Your task to perform on an android device: delete location history Image 0: 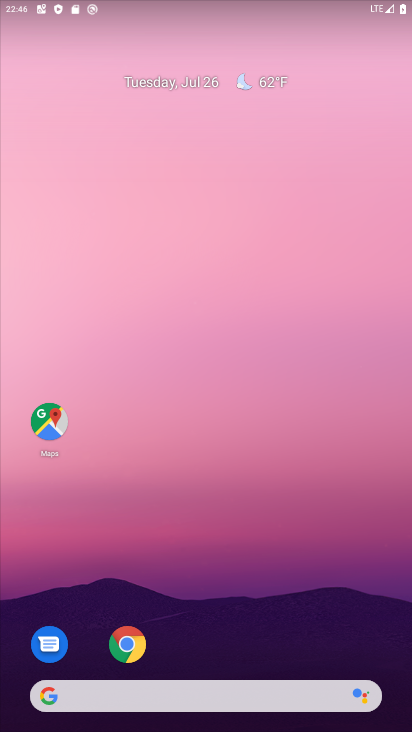
Step 0: click (49, 426)
Your task to perform on an android device: delete location history Image 1: 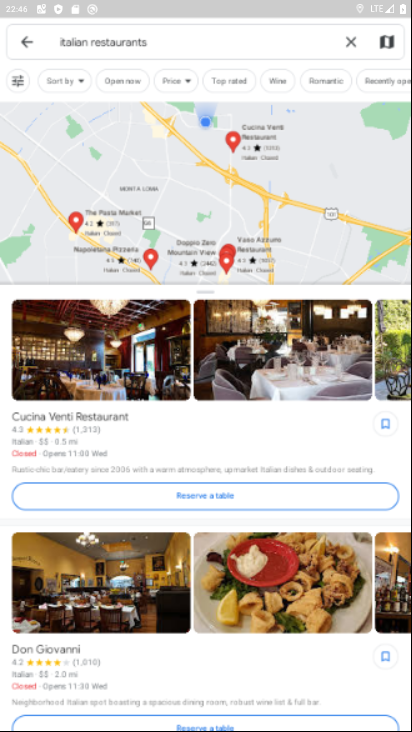
Step 1: click (347, 45)
Your task to perform on an android device: delete location history Image 2: 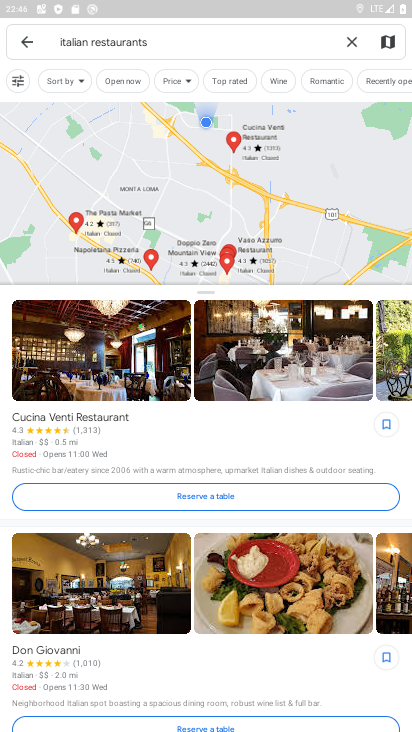
Step 2: click (351, 46)
Your task to perform on an android device: delete location history Image 3: 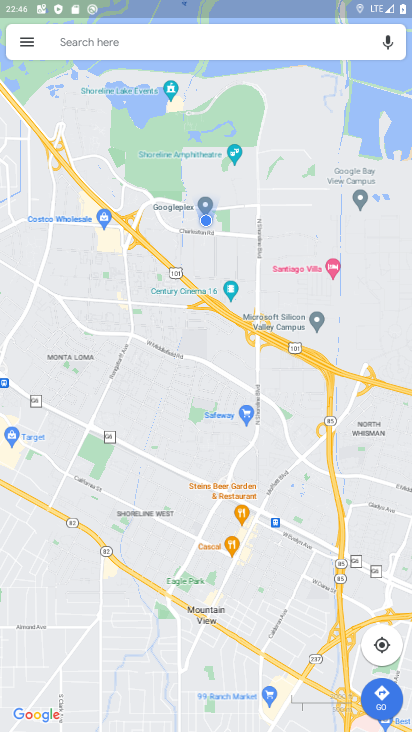
Step 3: click (28, 37)
Your task to perform on an android device: delete location history Image 4: 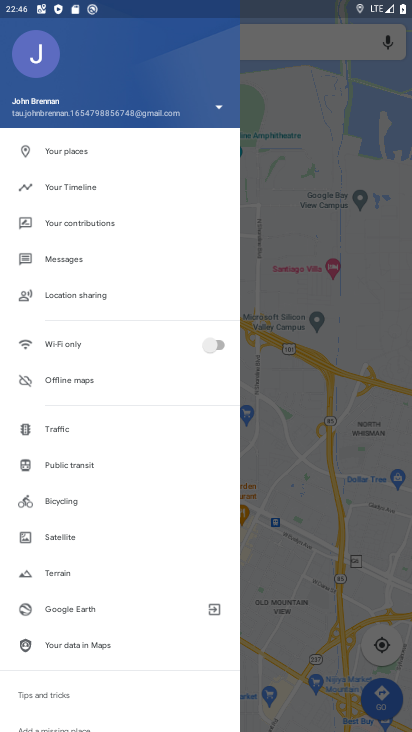
Step 4: click (53, 190)
Your task to perform on an android device: delete location history Image 5: 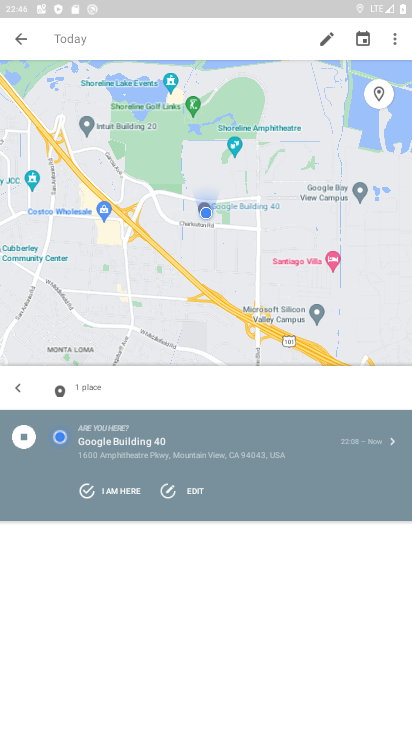
Step 5: click (396, 36)
Your task to perform on an android device: delete location history Image 6: 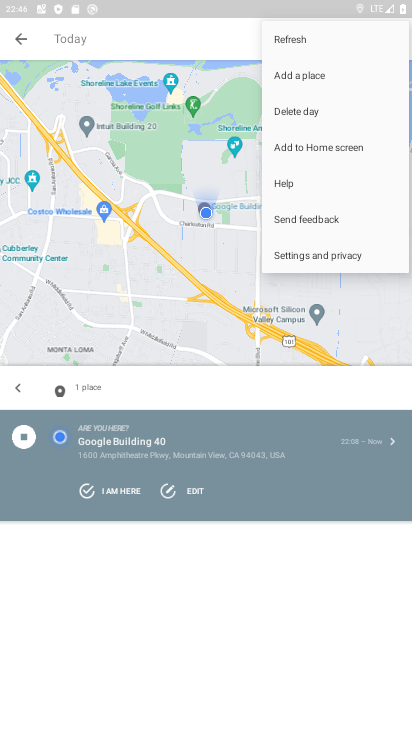
Step 6: click (300, 253)
Your task to perform on an android device: delete location history Image 7: 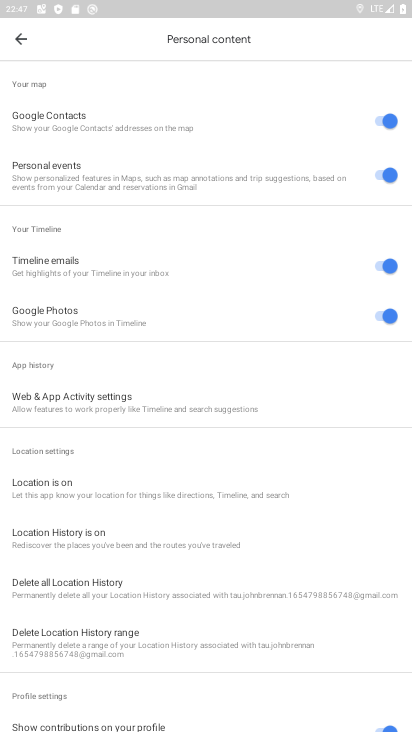
Step 7: click (43, 589)
Your task to perform on an android device: delete location history Image 8: 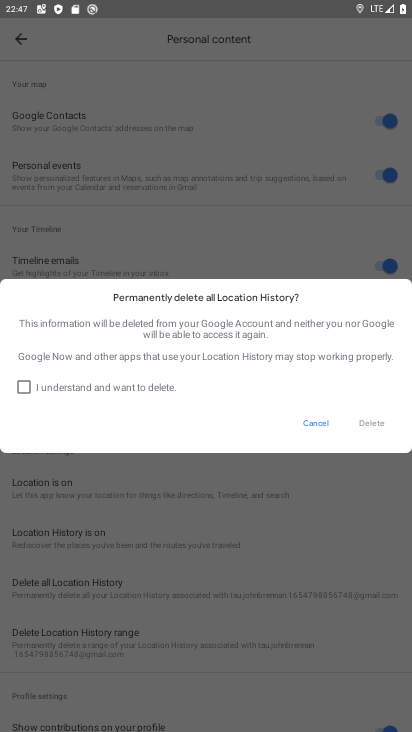
Step 8: click (22, 389)
Your task to perform on an android device: delete location history Image 9: 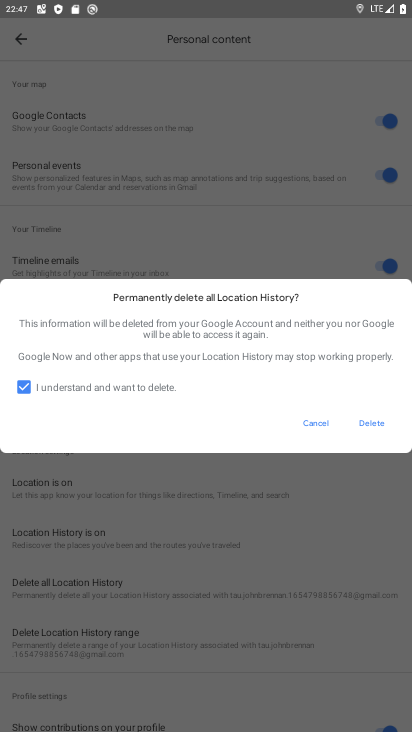
Step 9: click (358, 423)
Your task to perform on an android device: delete location history Image 10: 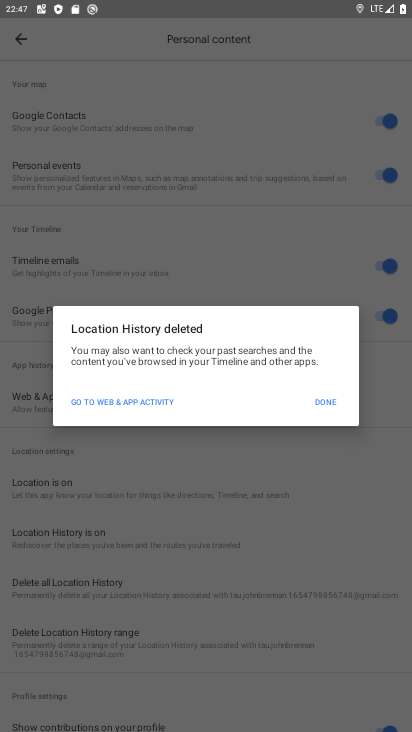
Step 10: click (325, 410)
Your task to perform on an android device: delete location history Image 11: 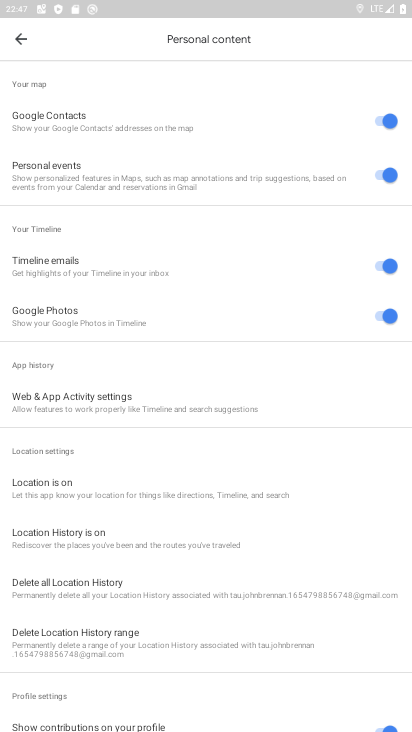
Step 11: task complete